Your task to perform on an android device: Open wifi settings Image 0: 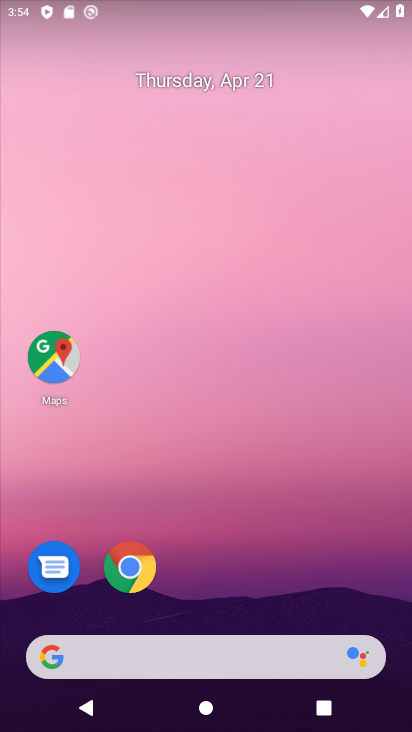
Step 0: drag from (316, 552) to (315, 80)
Your task to perform on an android device: Open wifi settings Image 1: 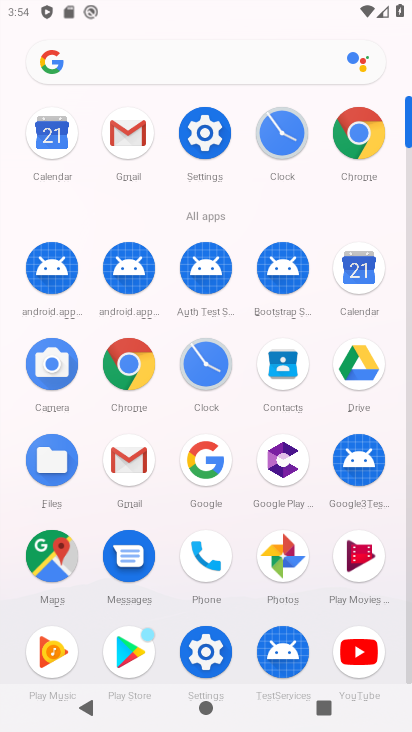
Step 1: click (209, 134)
Your task to perform on an android device: Open wifi settings Image 2: 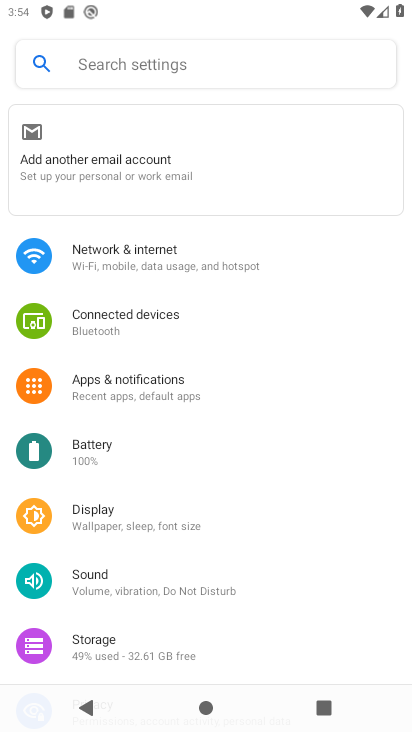
Step 2: click (119, 275)
Your task to perform on an android device: Open wifi settings Image 3: 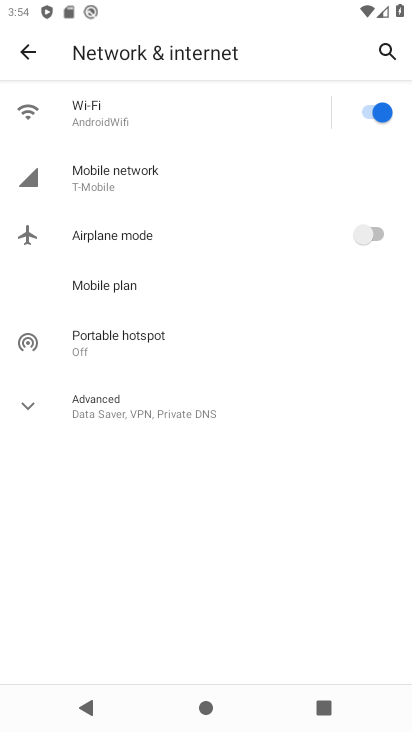
Step 3: click (136, 108)
Your task to perform on an android device: Open wifi settings Image 4: 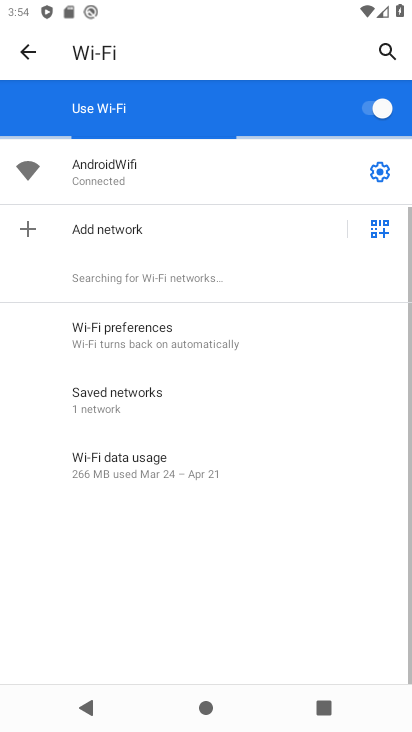
Step 4: task complete